Your task to perform on an android device: Open notification settings Image 0: 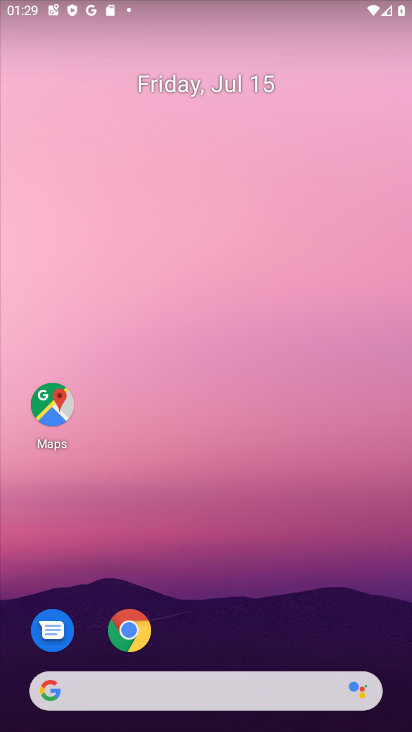
Step 0: drag from (329, 645) to (272, 131)
Your task to perform on an android device: Open notification settings Image 1: 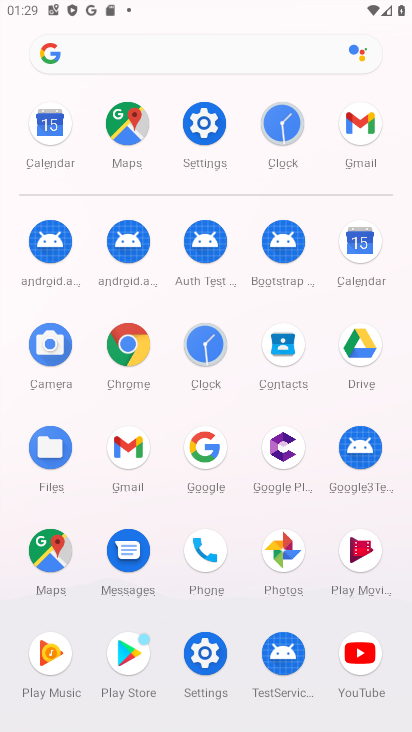
Step 1: click (216, 135)
Your task to perform on an android device: Open notification settings Image 2: 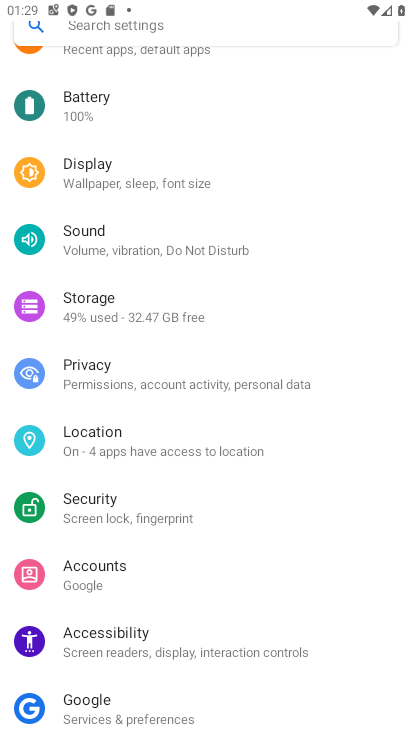
Step 2: click (116, 50)
Your task to perform on an android device: Open notification settings Image 3: 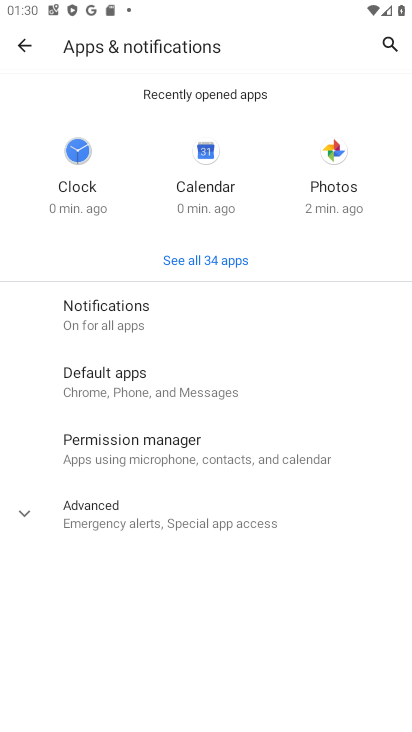
Step 3: task complete